Your task to perform on an android device: set an alarm Image 0: 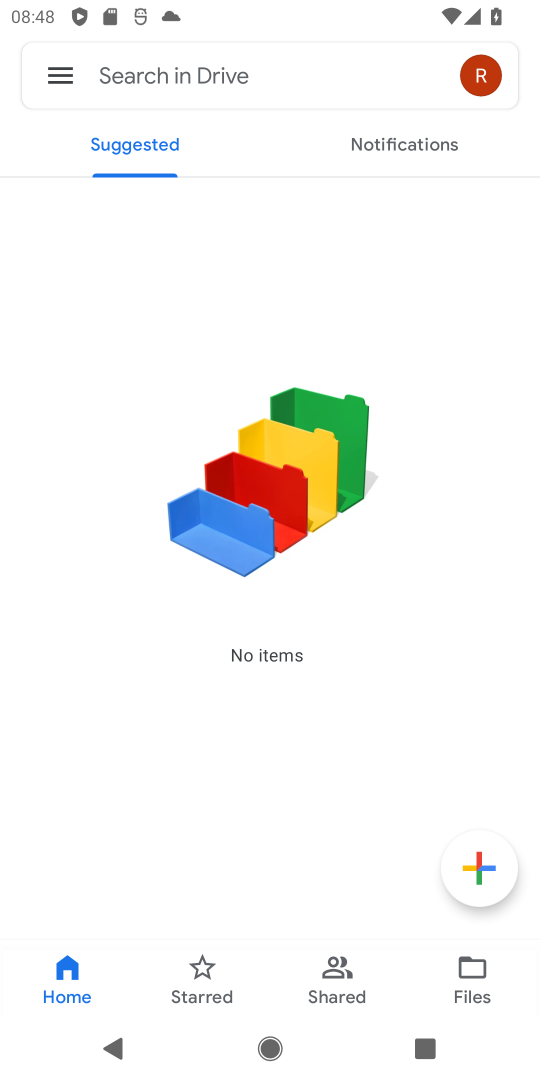
Step 0: press home button
Your task to perform on an android device: set an alarm Image 1: 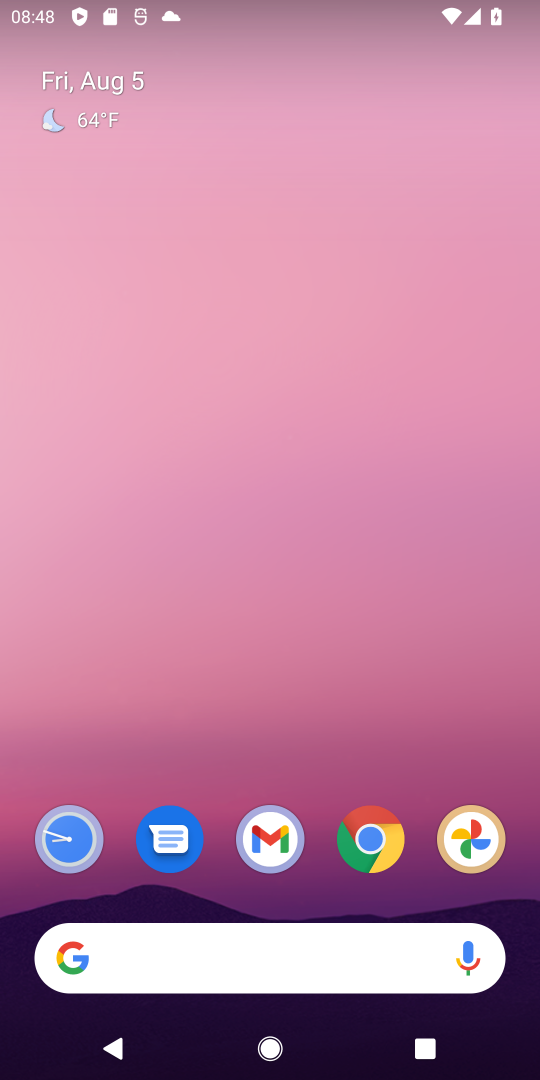
Step 1: drag from (338, 882) to (320, 45)
Your task to perform on an android device: set an alarm Image 2: 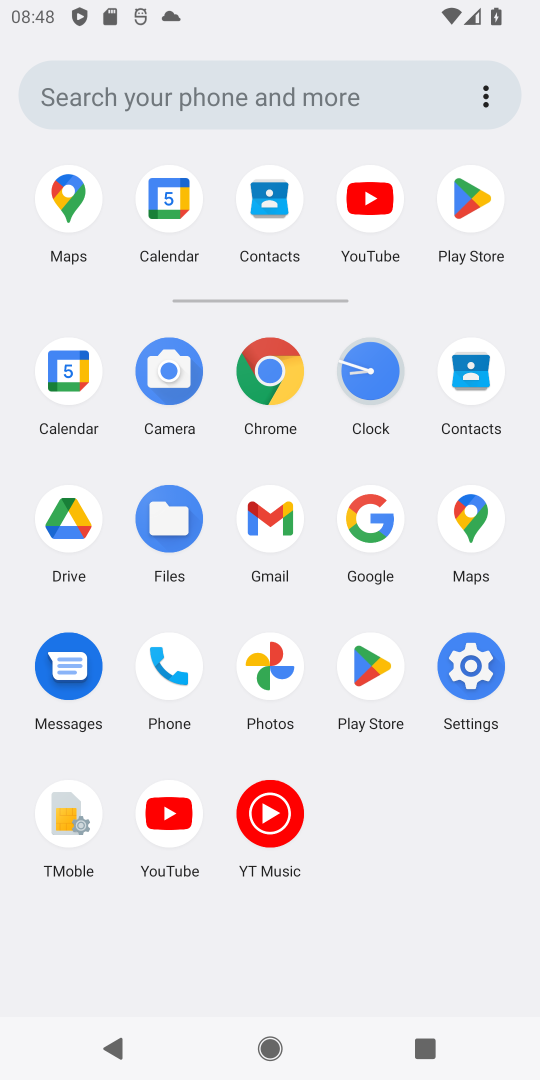
Step 2: click (378, 371)
Your task to perform on an android device: set an alarm Image 3: 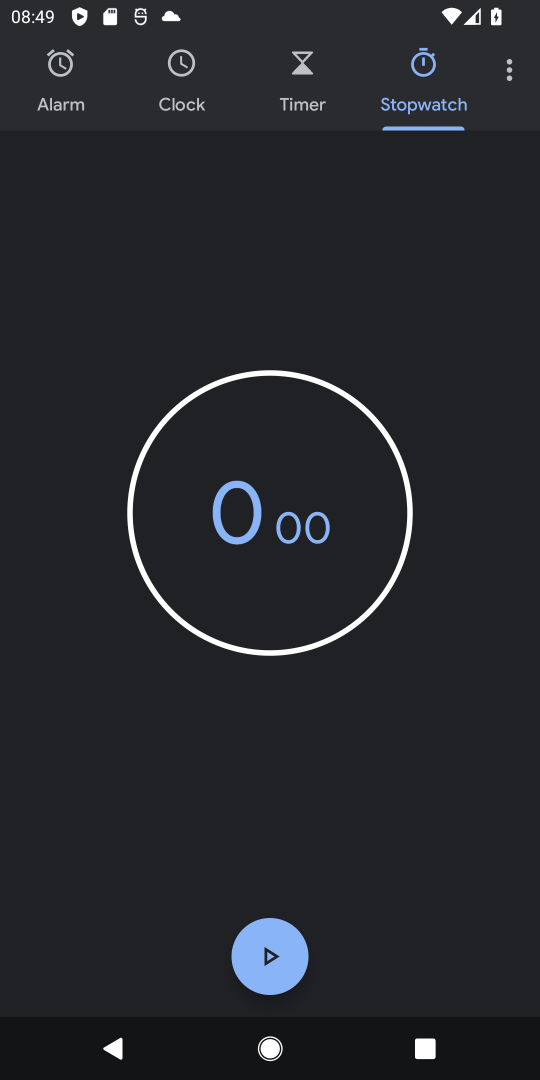
Step 3: click (43, 74)
Your task to perform on an android device: set an alarm Image 4: 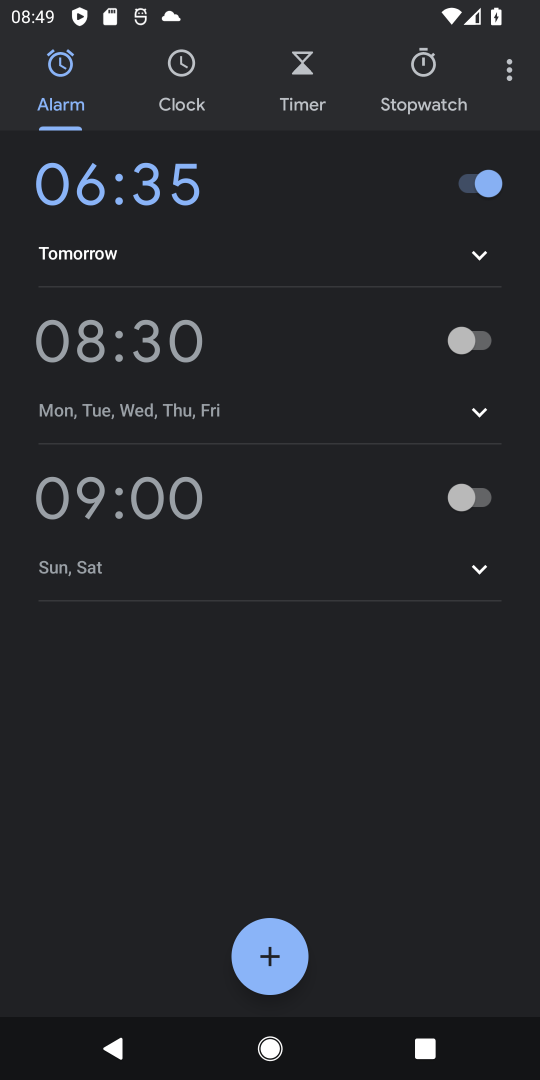
Step 4: click (263, 960)
Your task to perform on an android device: set an alarm Image 5: 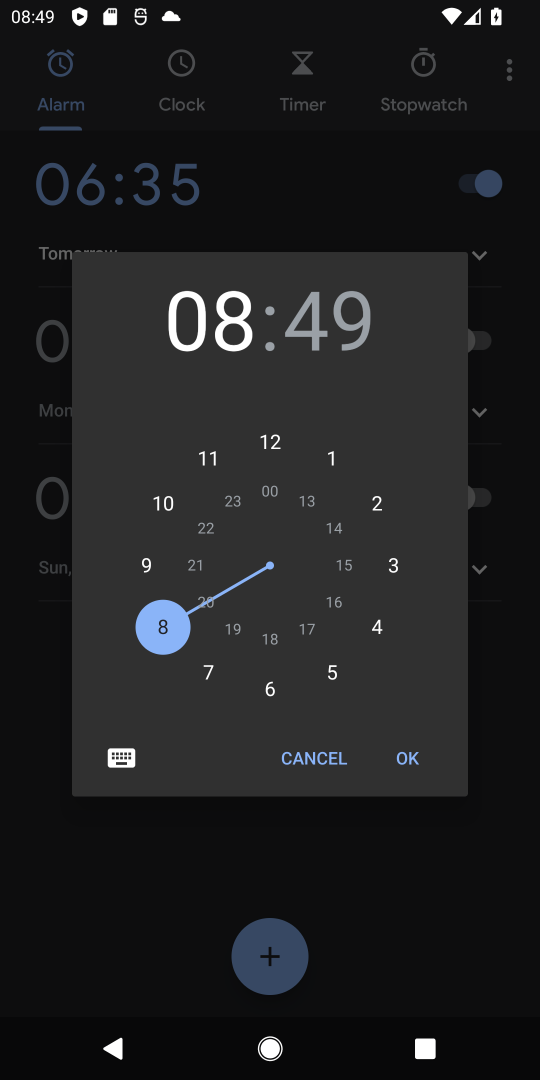
Step 5: click (261, 425)
Your task to perform on an android device: set an alarm Image 6: 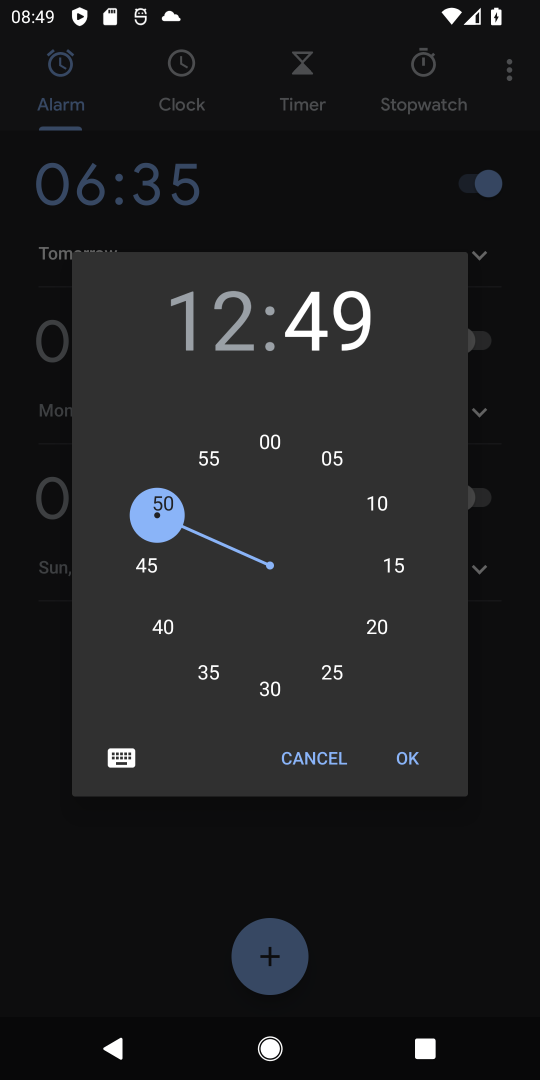
Step 6: click (411, 750)
Your task to perform on an android device: set an alarm Image 7: 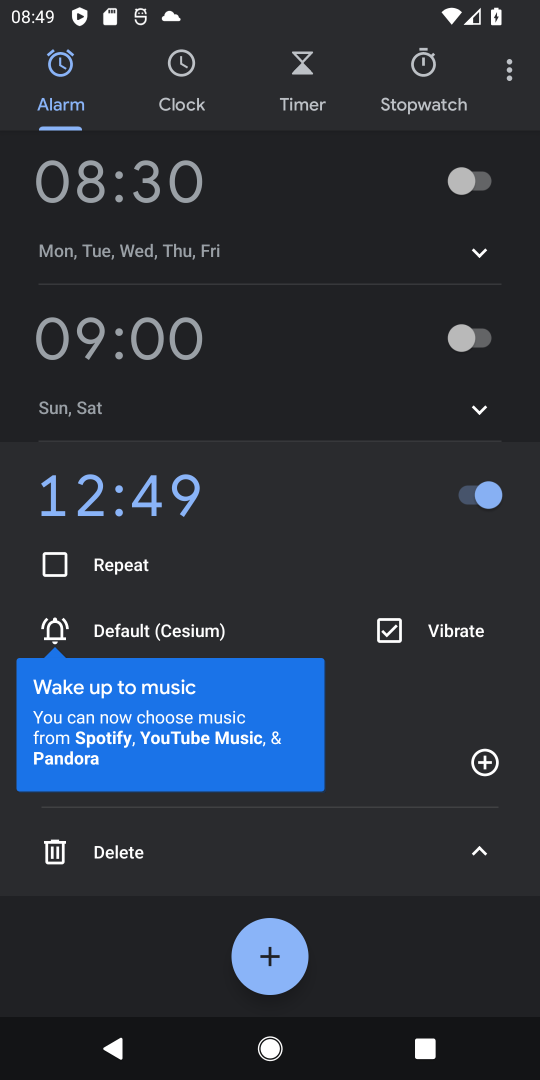
Step 7: task complete